Your task to perform on an android device: turn on airplane mode Image 0: 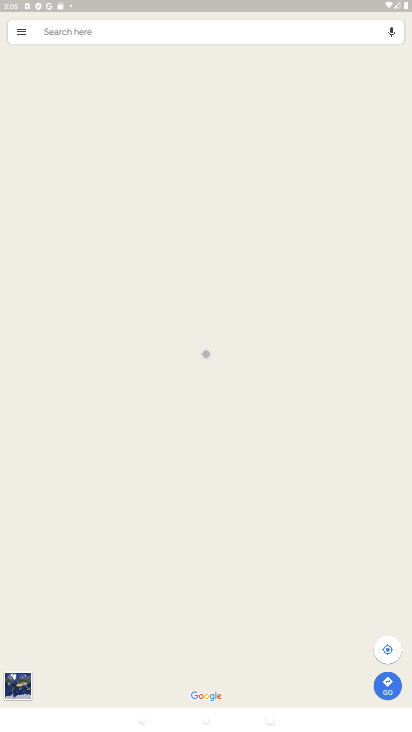
Step 0: press home button
Your task to perform on an android device: turn on airplane mode Image 1: 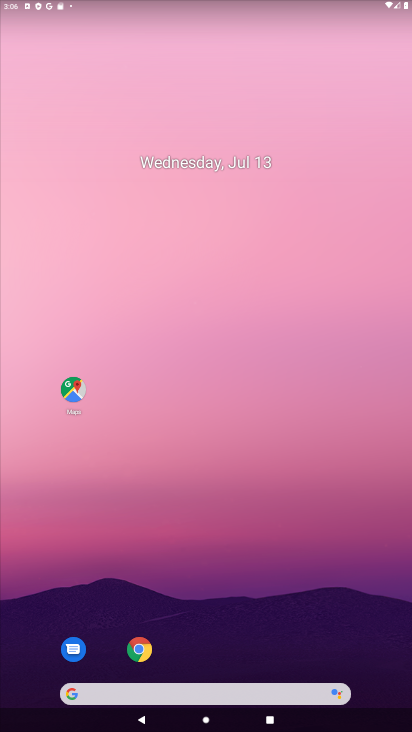
Step 1: drag from (228, 4) to (244, 443)
Your task to perform on an android device: turn on airplane mode Image 2: 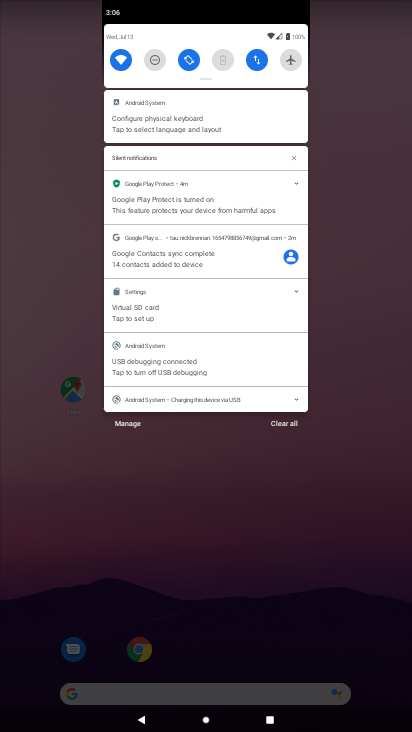
Step 2: click (289, 54)
Your task to perform on an android device: turn on airplane mode Image 3: 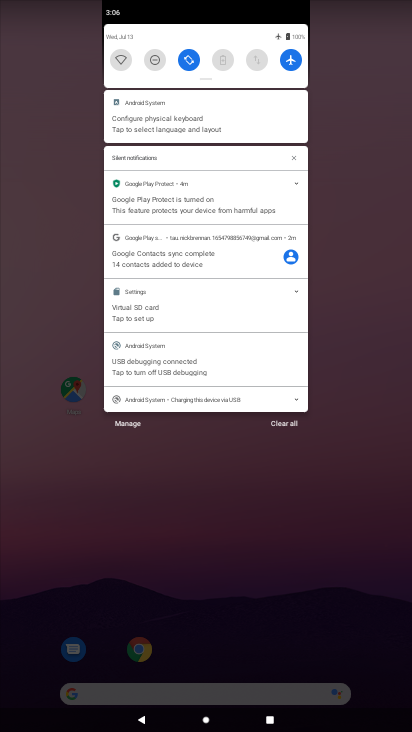
Step 3: task complete